Your task to perform on an android device: Open battery settings Image 0: 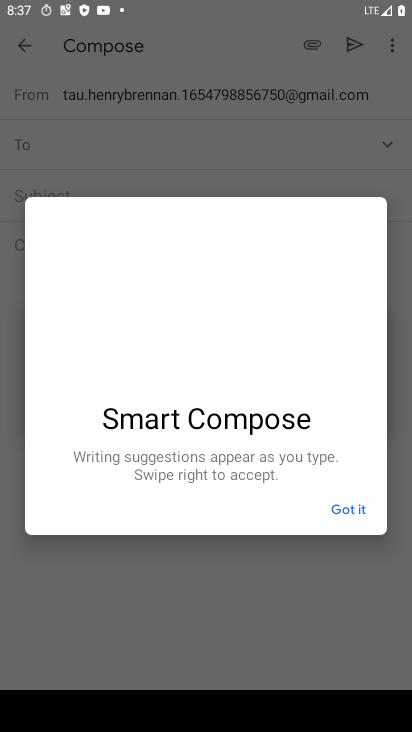
Step 0: press home button
Your task to perform on an android device: Open battery settings Image 1: 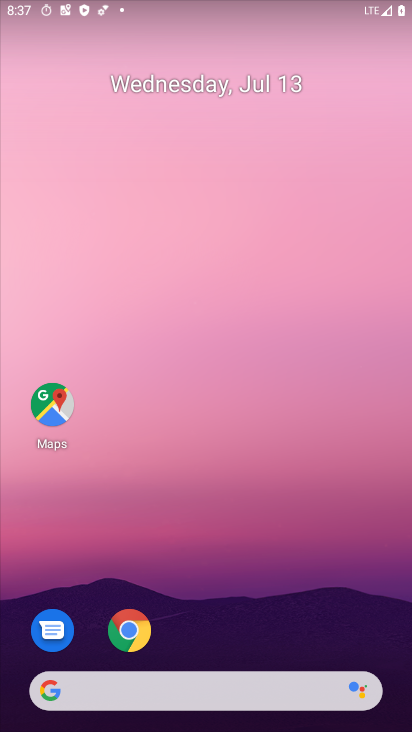
Step 1: drag from (344, 610) to (377, 201)
Your task to perform on an android device: Open battery settings Image 2: 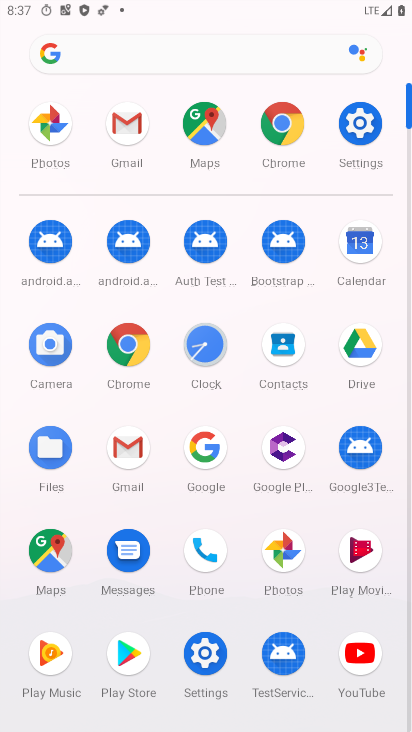
Step 2: click (358, 130)
Your task to perform on an android device: Open battery settings Image 3: 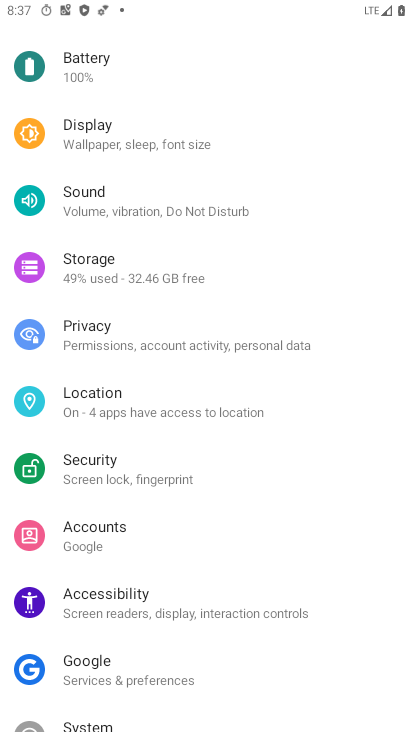
Step 3: drag from (350, 261) to (351, 348)
Your task to perform on an android device: Open battery settings Image 4: 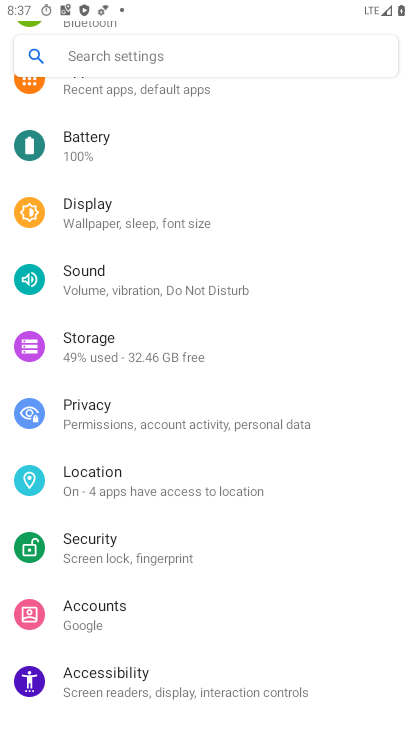
Step 4: drag from (333, 204) to (349, 315)
Your task to perform on an android device: Open battery settings Image 5: 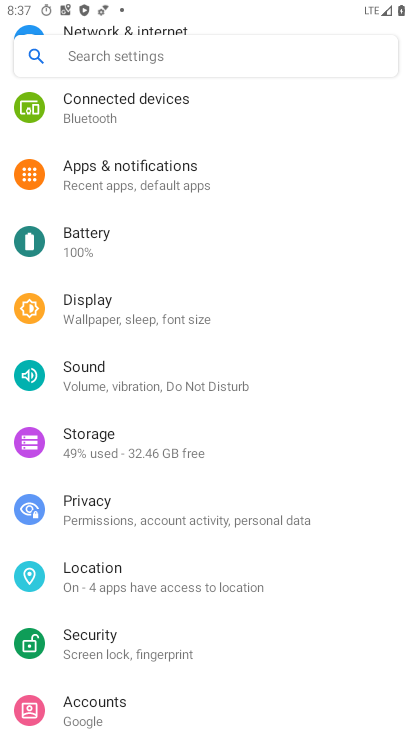
Step 5: drag from (326, 160) to (332, 269)
Your task to perform on an android device: Open battery settings Image 6: 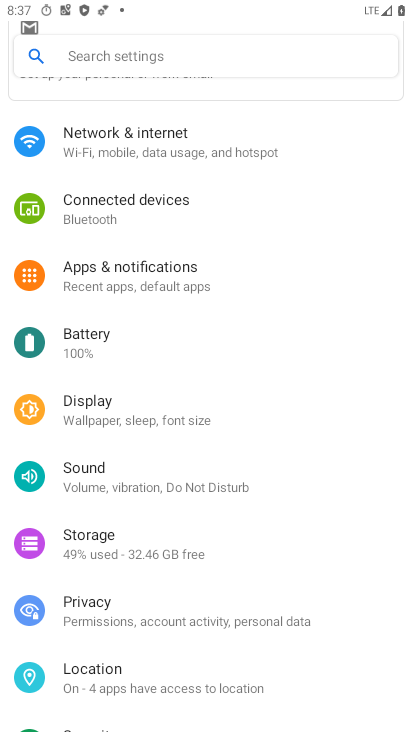
Step 6: drag from (327, 152) to (325, 291)
Your task to perform on an android device: Open battery settings Image 7: 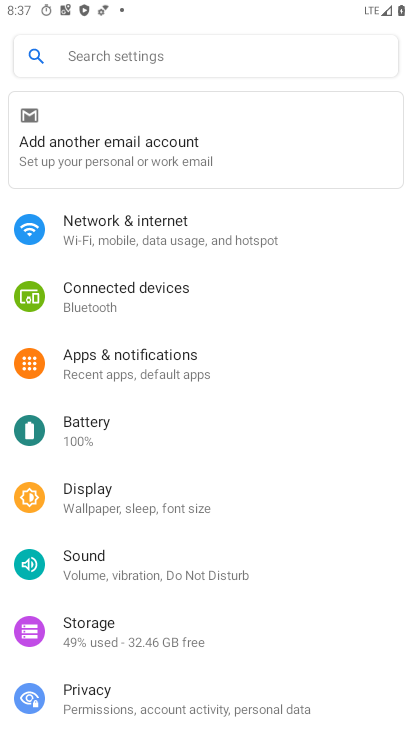
Step 7: click (114, 439)
Your task to perform on an android device: Open battery settings Image 8: 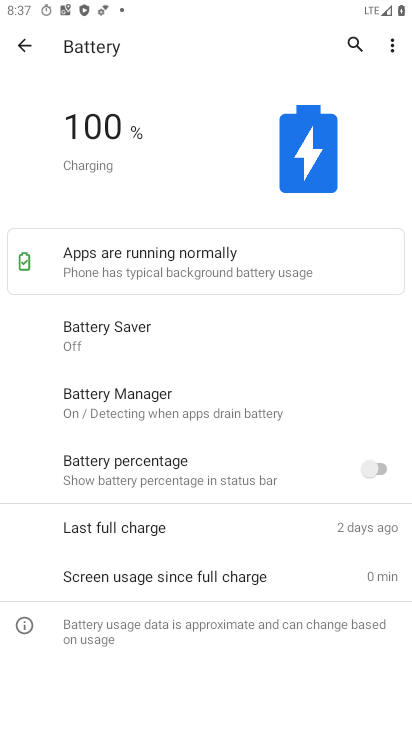
Step 8: task complete